Your task to perform on an android device: toggle pop-ups in chrome Image 0: 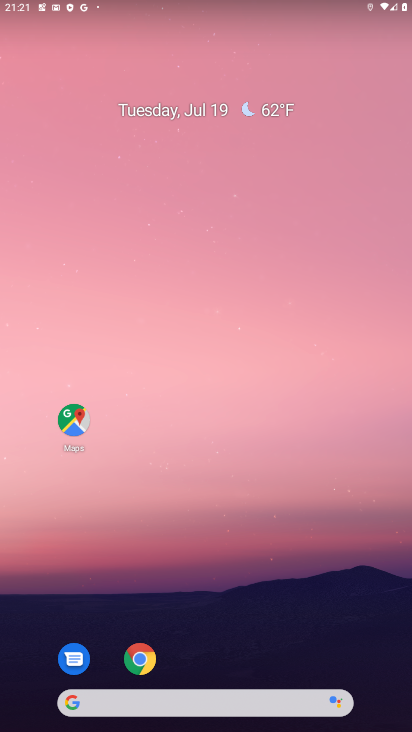
Step 0: press home button
Your task to perform on an android device: toggle pop-ups in chrome Image 1: 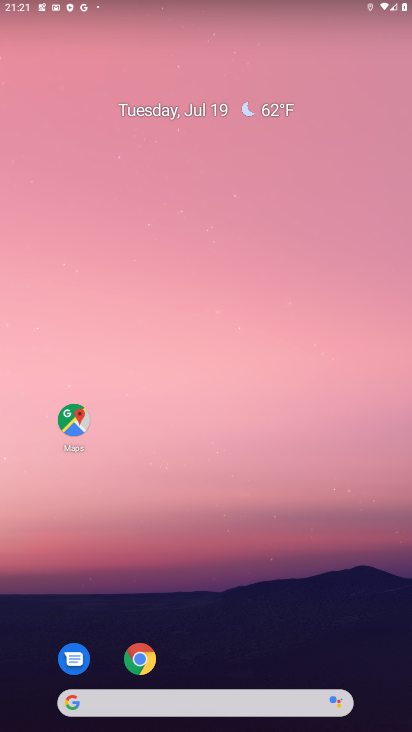
Step 1: drag from (281, 655) to (327, 63)
Your task to perform on an android device: toggle pop-ups in chrome Image 2: 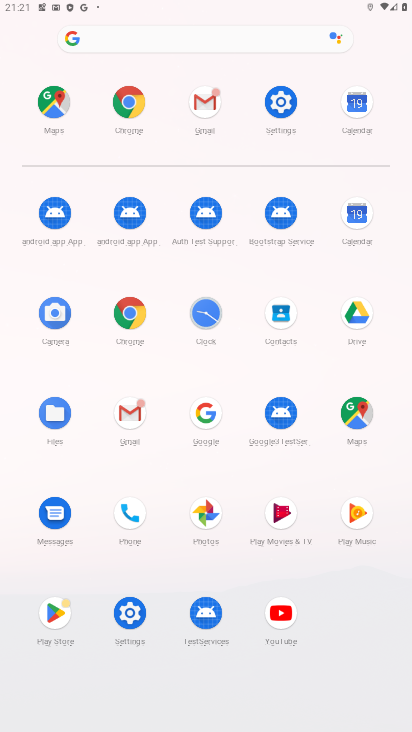
Step 2: click (141, 106)
Your task to perform on an android device: toggle pop-ups in chrome Image 3: 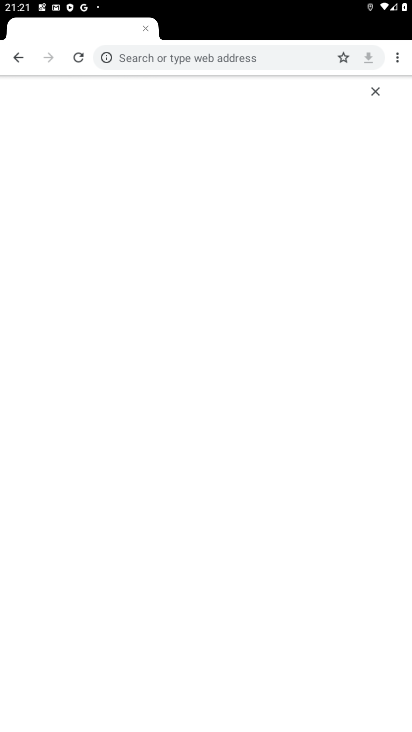
Step 3: drag from (389, 61) to (274, 257)
Your task to perform on an android device: toggle pop-ups in chrome Image 4: 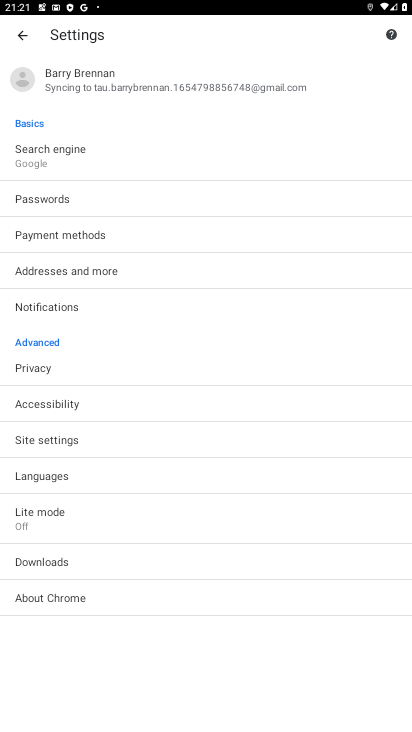
Step 4: click (54, 432)
Your task to perform on an android device: toggle pop-ups in chrome Image 5: 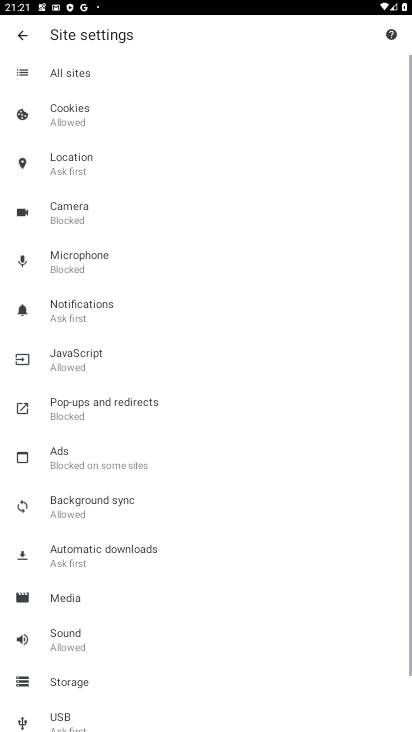
Step 5: click (49, 409)
Your task to perform on an android device: toggle pop-ups in chrome Image 6: 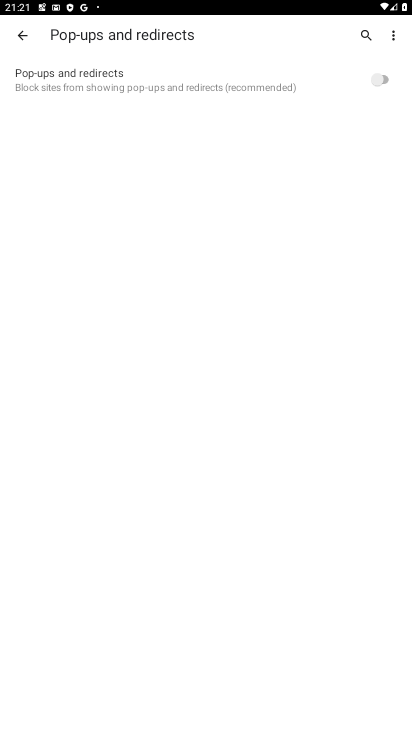
Step 6: click (158, 76)
Your task to perform on an android device: toggle pop-ups in chrome Image 7: 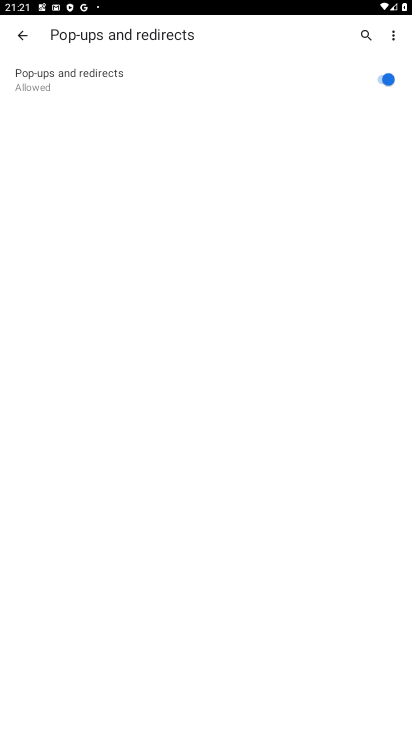
Step 7: task complete